Your task to perform on an android device: Is it going to rain tomorrow? Image 0: 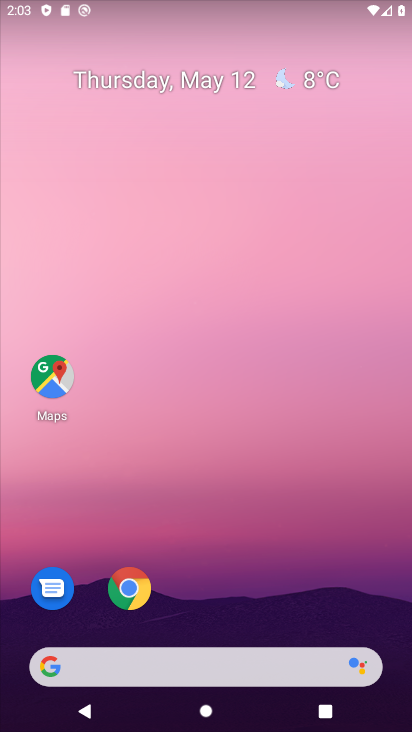
Step 0: drag from (248, 570) to (178, 43)
Your task to perform on an android device: Is it going to rain tomorrow? Image 1: 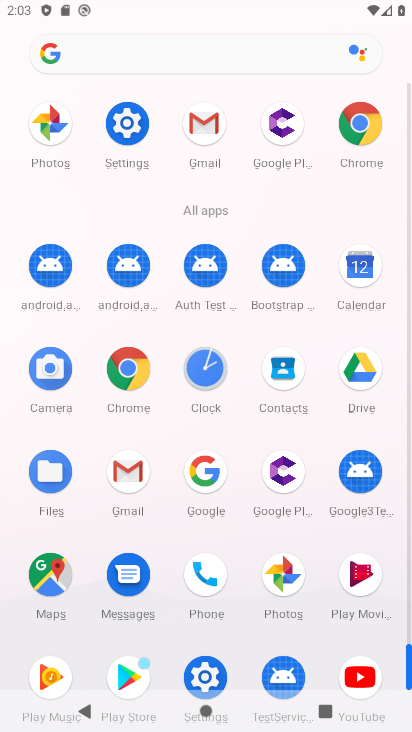
Step 1: drag from (0, 518) to (16, 240)
Your task to perform on an android device: Is it going to rain tomorrow? Image 2: 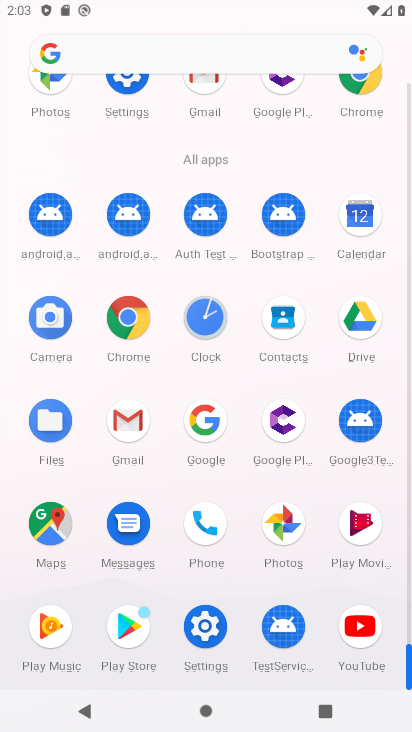
Step 2: click (361, 81)
Your task to perform on an android device: Is it going to rain tomorrow? Image 3: 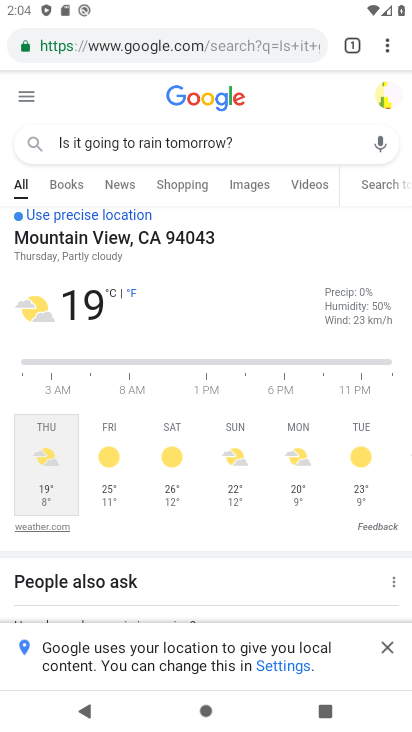
Step 3: task complete